Your task to perform on an android device: Go to CNN.com Image 0: 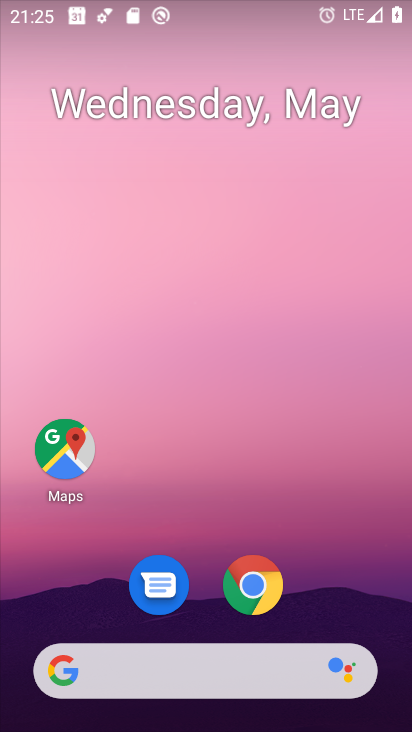
Step 0: click (282, 676)
Your task to perform on an android device: Go to CNN.com Image 1: 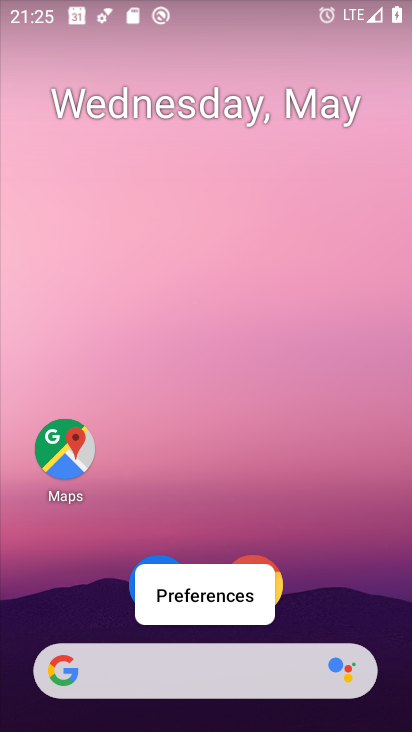
Step 1: click (282, 676)
Your task to perform on an android device: Go to CNN.com Image 2: 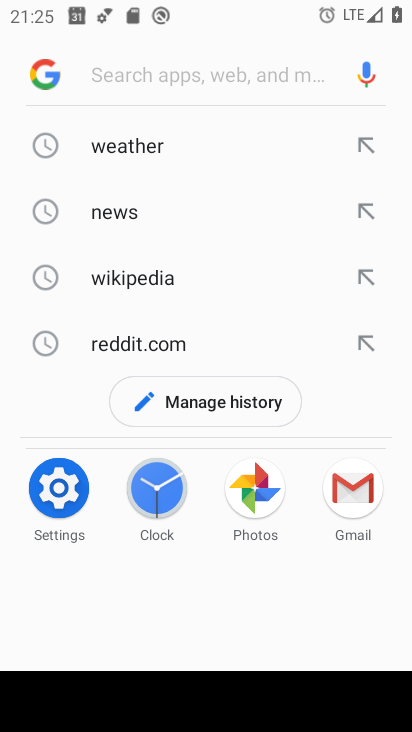
Step 2: type "cnn.com"
Your task to perform on an android device: Go to CNN.com Image 3: 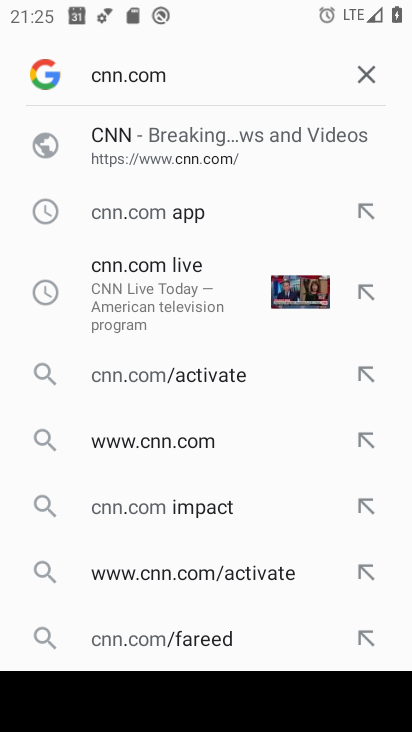
Step 3: click (105, 144)
Your task to perform on an android device: Go to CNN.com Image 4: 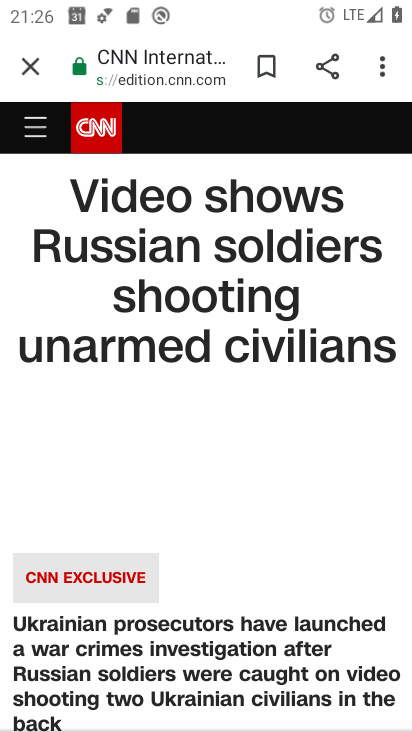
Step 4: task complete